Your task to perform on an android device: change text size in settings app Image 0: 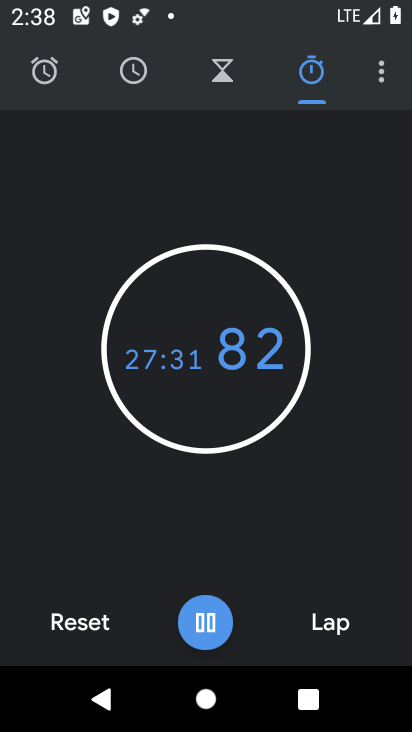
Step 0: press home button
Your task to perform on an android device: change text size in settings app Image 1: 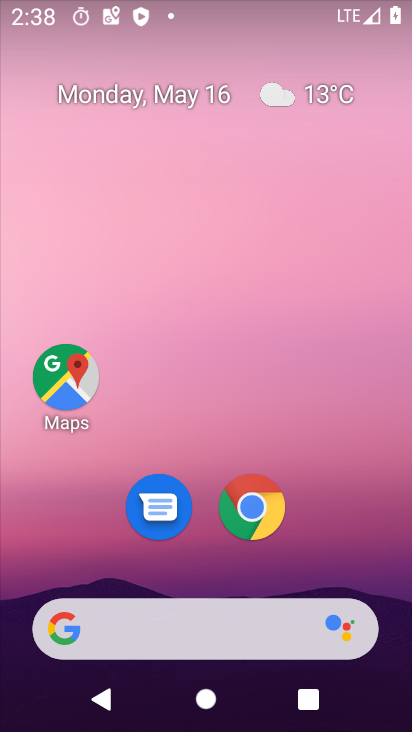
Step 1: drag from (353, 547) to (351, 145)
Your task to perform on an android device: change text size in settings app Image 2: 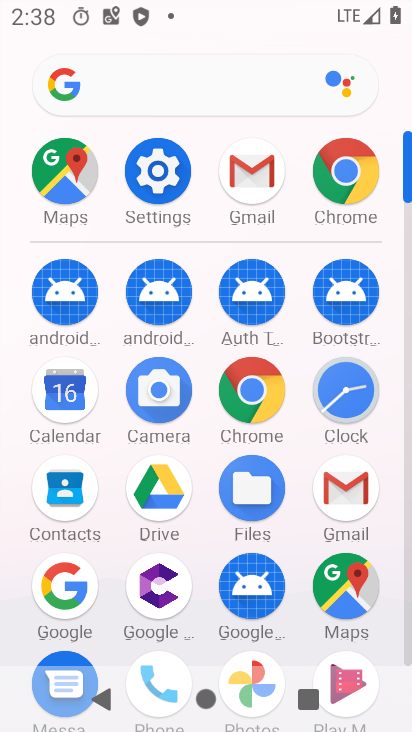
Step 2: click (173, 187)
Your task to perform on an android device: change text size in settings app Image 3: 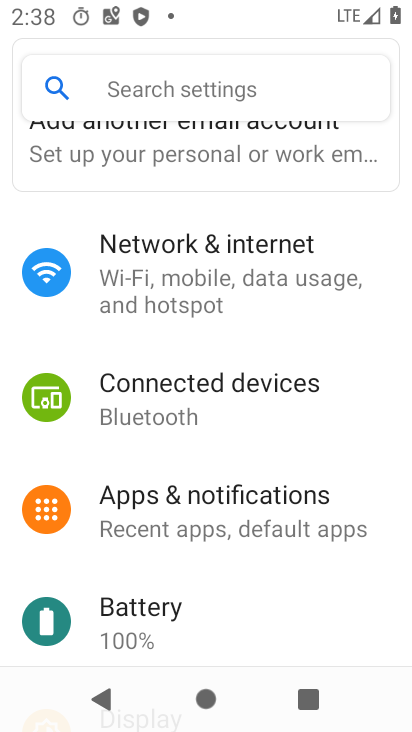
Step 3: drag from (352, 613) to (360, 446)
Your task to perform on an android device: change text size in settings app Image 4: 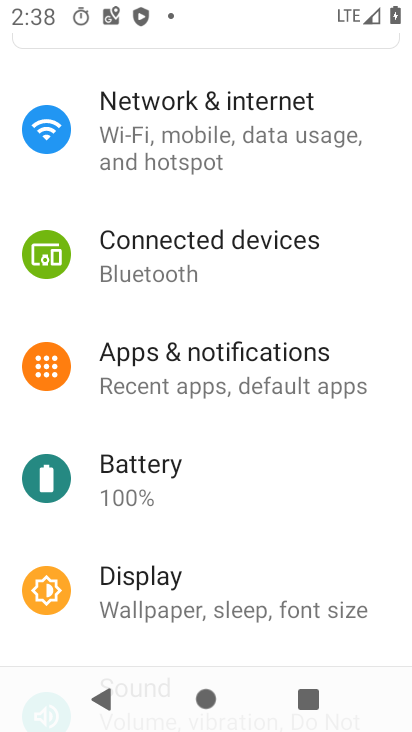
Step 4: drag from (347, 641) to (358, 425)
Your task to perform on an android device: change text size in settings app Image 5: 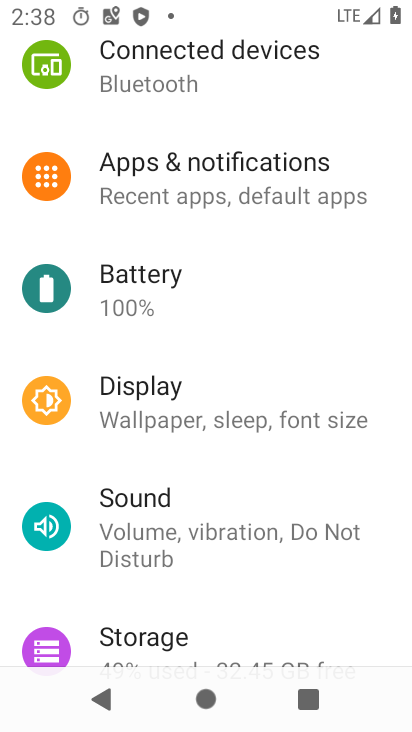
Step 5: drag from (322, 606) to (335, 470)
Your task to perform on an android device: change text size in settings app Image 6: 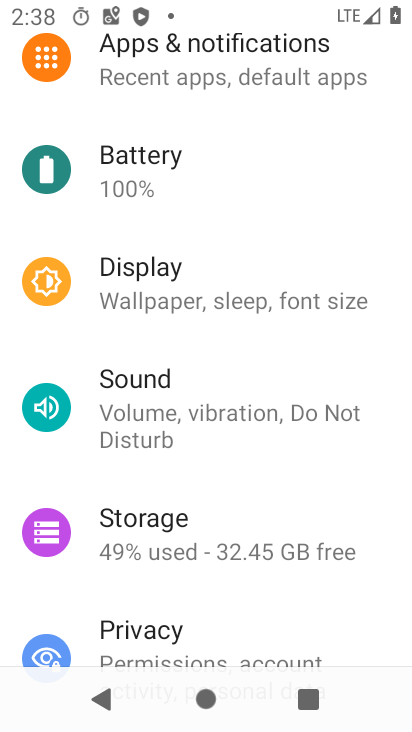
Step 6: drag from (308, 614) to (320, 404)
Your task to perform on an android device: change text size in settings app Image 7: 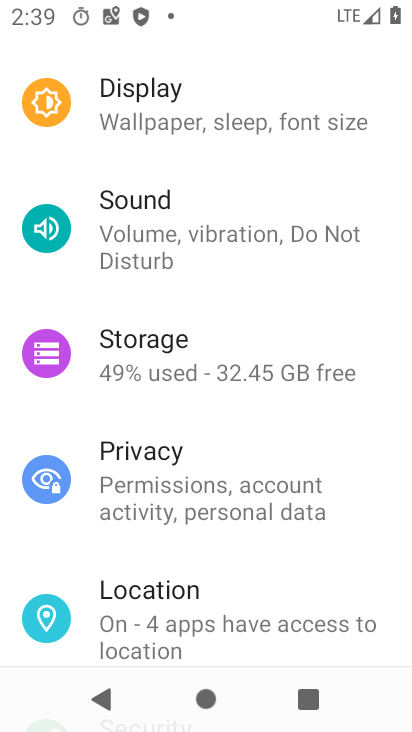
Step 7: drag from (335, 598) to (355, 421)
Your task to perform on an android device: change text size in settings app Image 8: 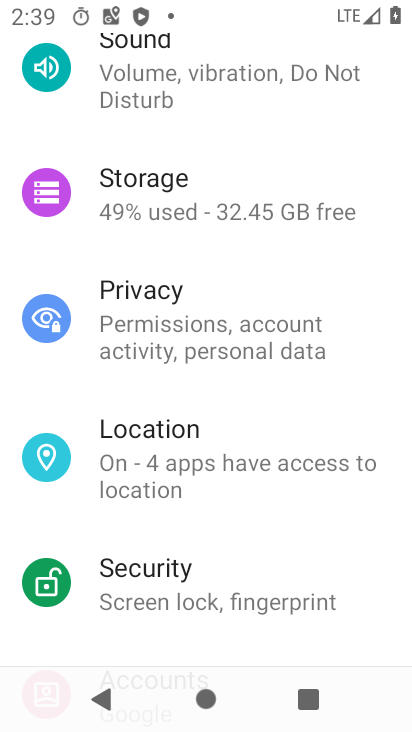
Step 8: drag from (347, 647) to (356, 415)
Your task to perform on an android device: change text size in settings app Image 9: 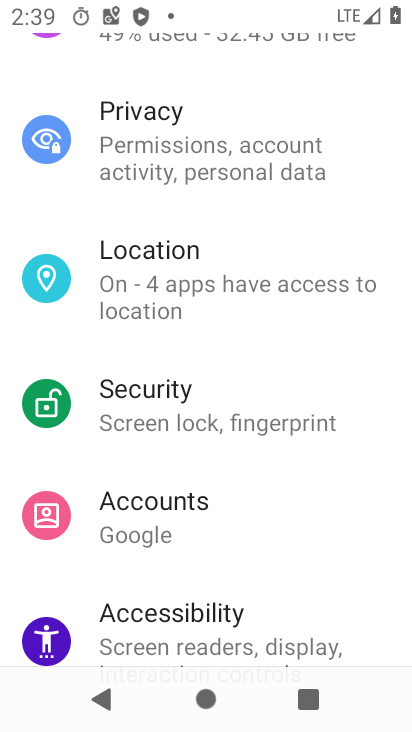
Step 9: drag from (346, 602) to (350, 453)
Your task to perform on an android device: change text size in settings app Image 10: 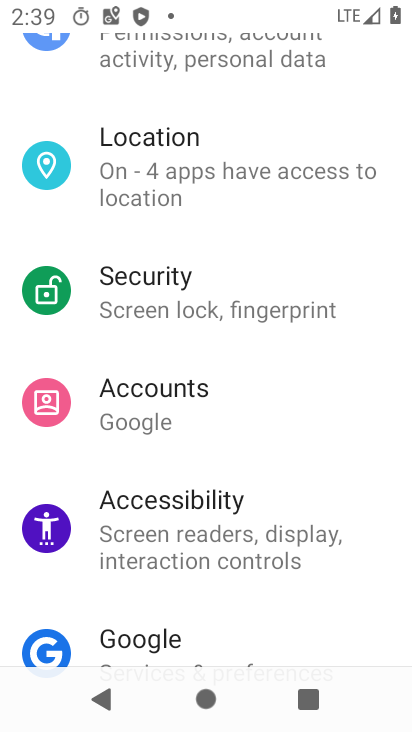
Step 10: drag from (343, 624) to (350, 448)
Your task to perform on an android device: change text size in settings app Image 11: 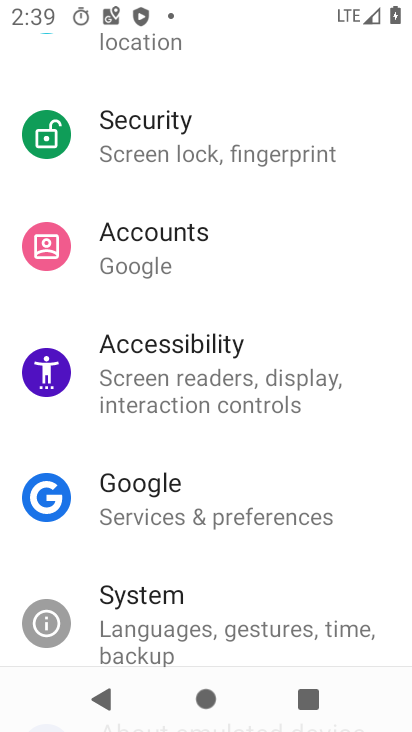
Step 11: drag from (363, 271) to (366, 431)
Your task to perform on an android device: change text size in settings app Image 12: 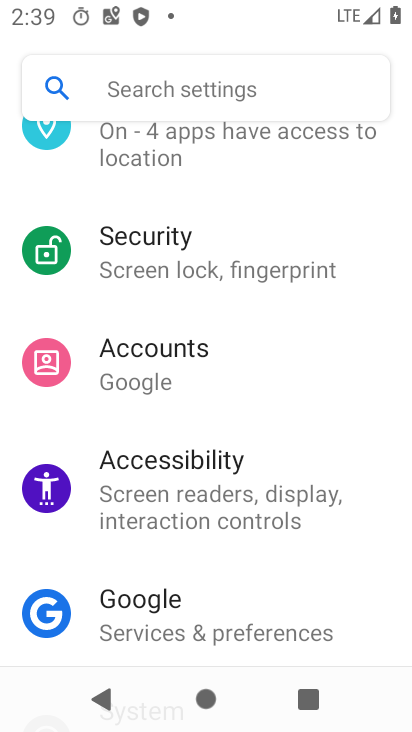
Step 12: drag from (374, 199) to (365, 391)
Your task to perform on an android device: change text size in settings app Image 13: 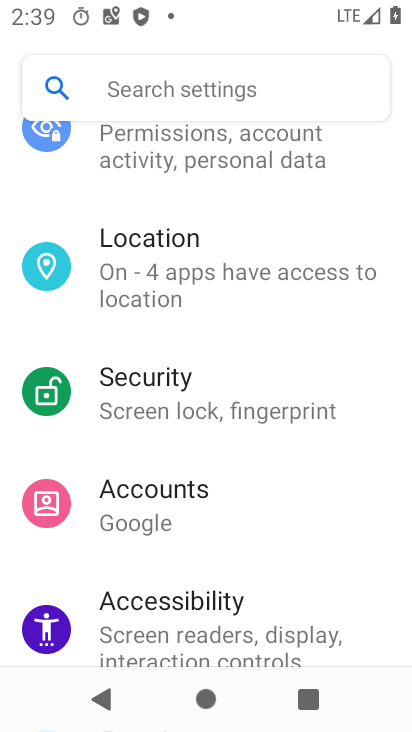
Step 13: drag from (369, 187) to (369, 376)
Your task to perform on an android device: change text size in settings app Image 14: 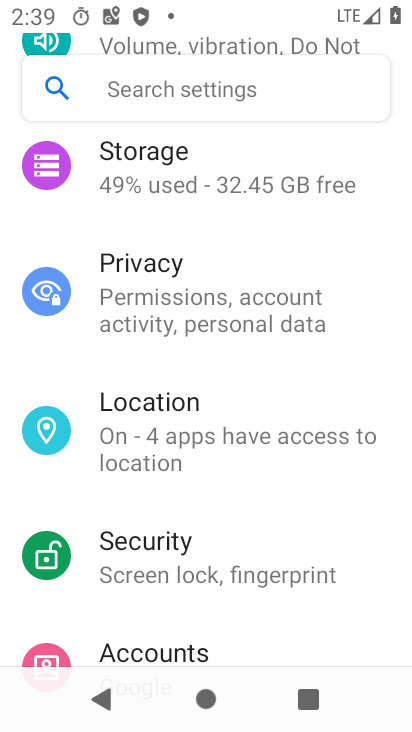
Step 14: drag from (370, 167) to (350, 377)
Your task to perform on an android device: change text size in settings app Image 15: 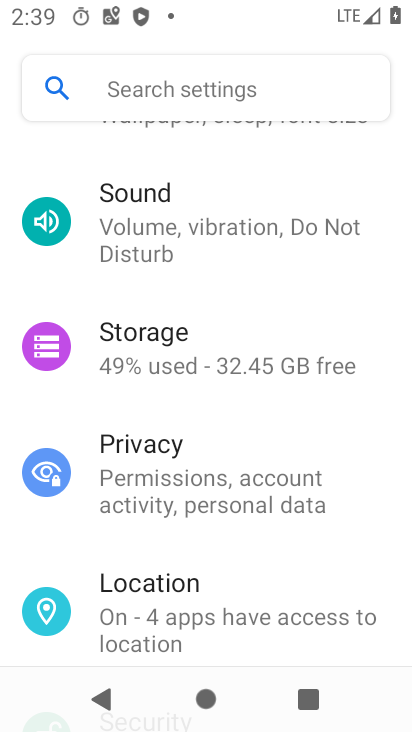
Step 15: drag from (366, 184) to (362, 365)
Your task to perform on an android device: change text size in settings app Image 16: 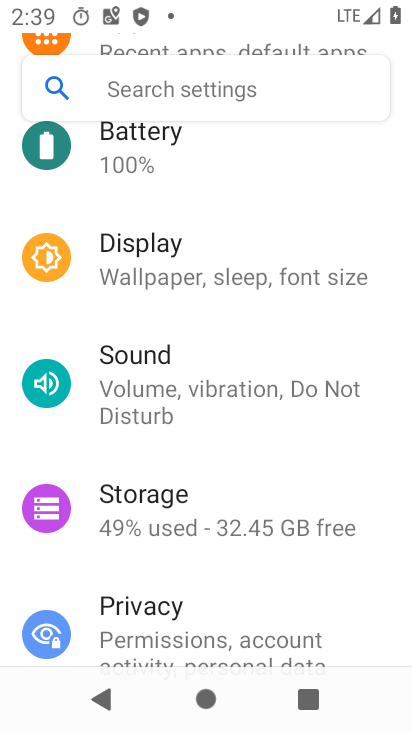
Step 16: drag from (366, 184) to (364, 355)
Your task to perform on an android device: change text size in settings app Image 17: 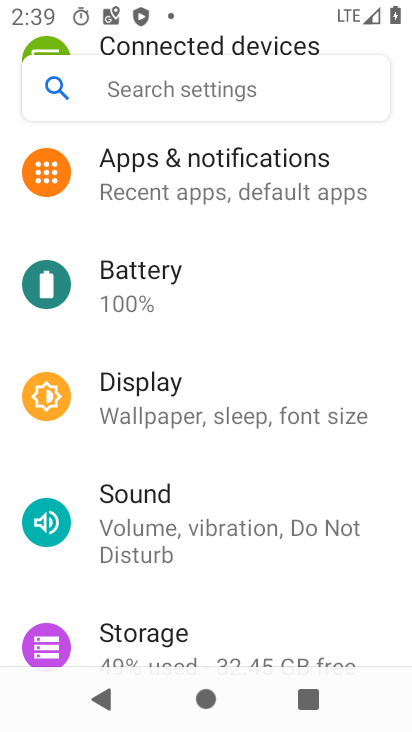
Step 17: click (272, 411)
Your task to perform on an android device: change text size in settings app Image 18: 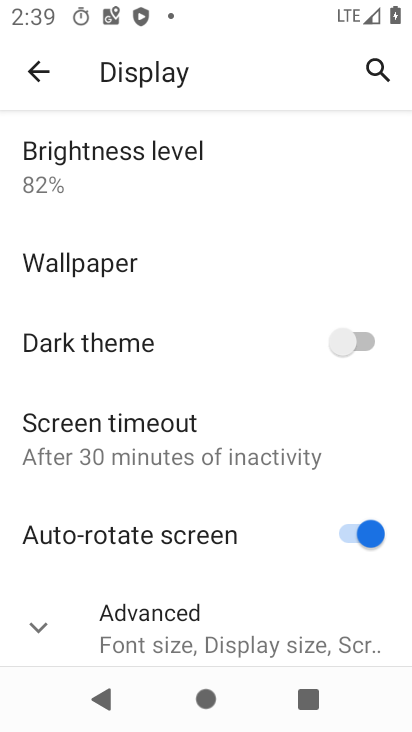
Step 18: click (171, 625)
Your task to perform on an android device: change text size in settings app Image 19: 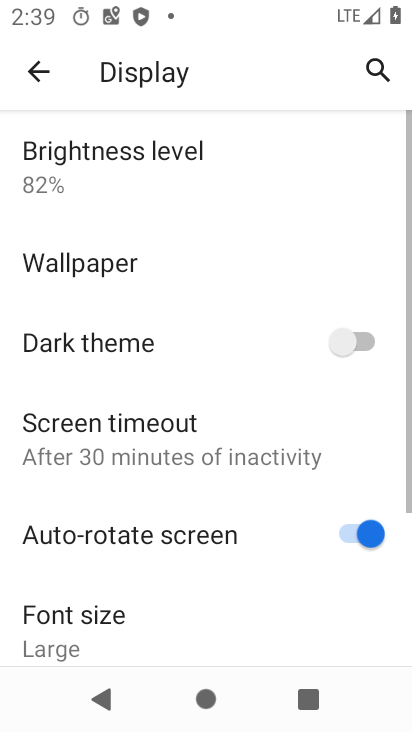
Step 19: drag from (264, 597) to (273, 402)
Your task to perform on an android device: change text size in settings app Image 20: 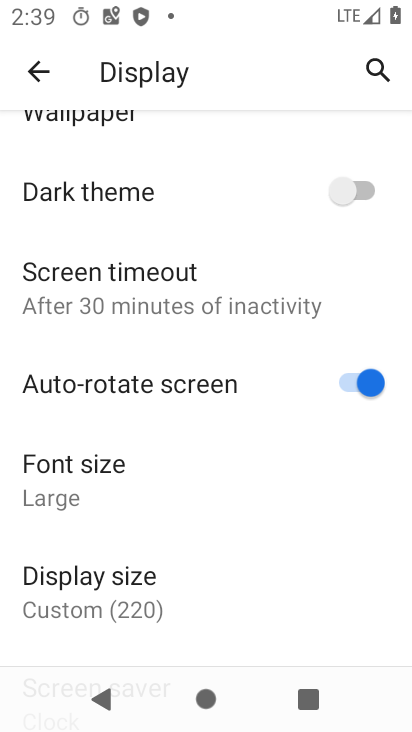
Step 20: click (33, 482)
Your task to perform on an android device: change text size in settings app Image 21: 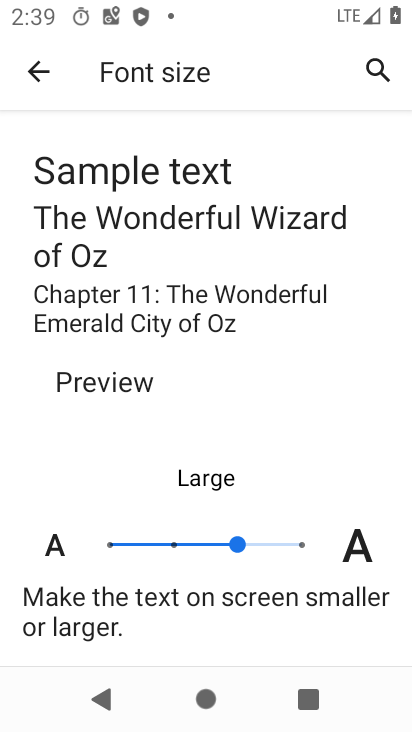
Step 21: click (171, 548)
Your task to perform on an android device: change text size in settings app Image 22: 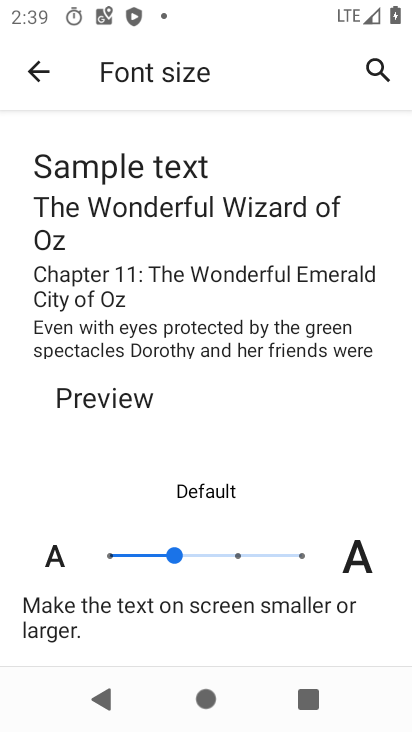
Step 22: task complete